Your task to perform on an android device: change text size in settings app Image 0: 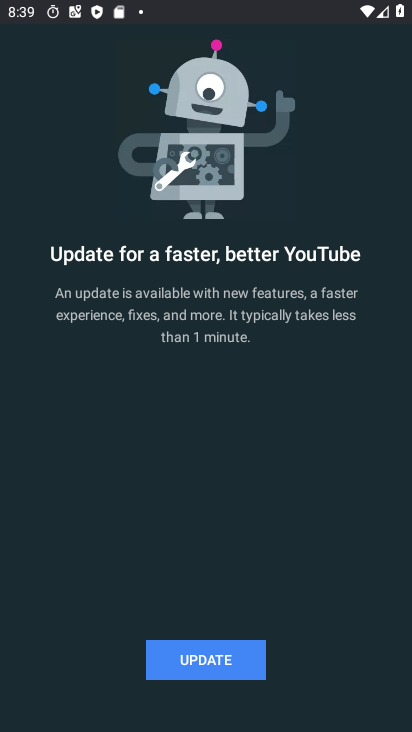
Step 0: press home button
Your task to perform on an android device: change text size in settings app Image 1: 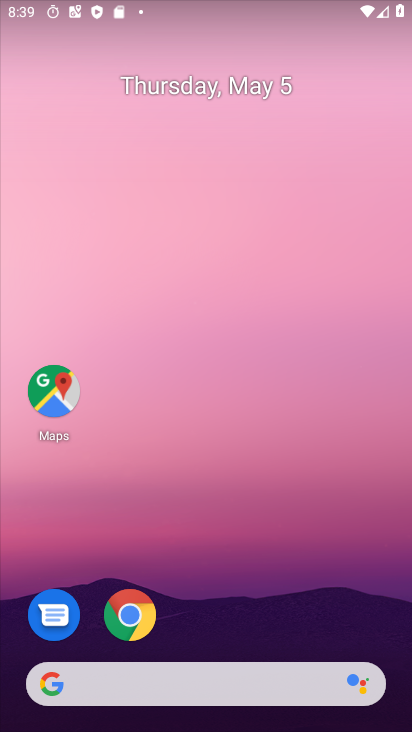
Step 1: drag from (344, 630) to (370, 0)
Your task to perform on an android device: change text size in settings app Image 2: 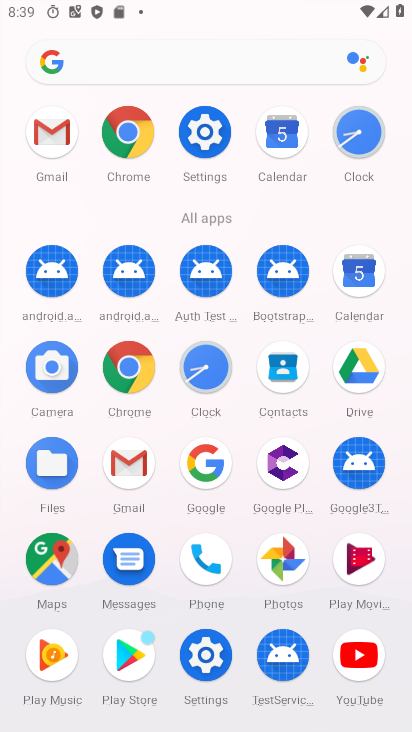
Step 2: click (223, 137)
Your task to perform on an android device: change text size in settings app Image 3: 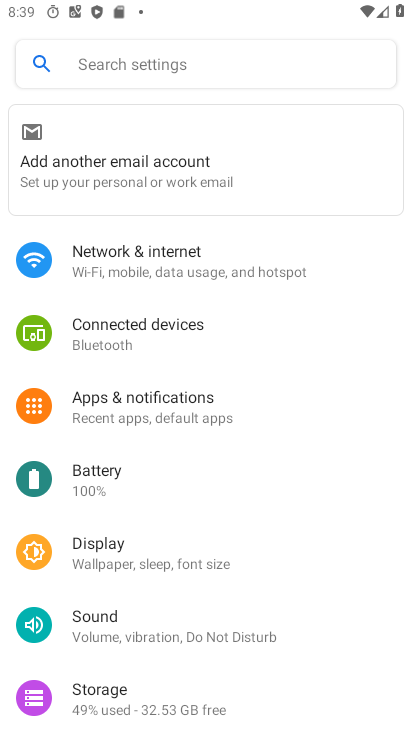
Step 3: click (136, 565)
Your task to perform on an android device: change text size in settings app Image 4: 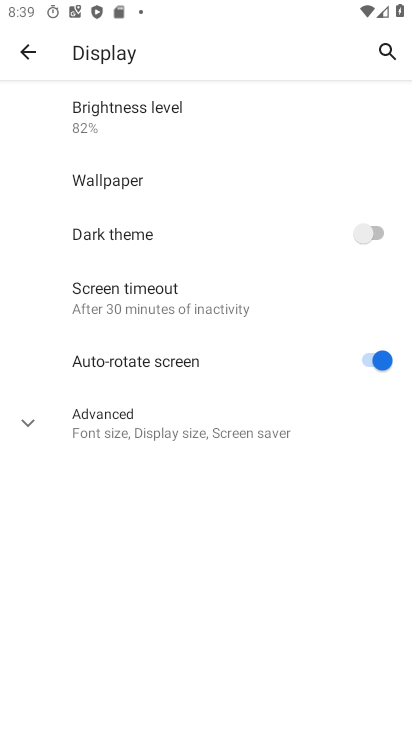
Step 4: click (145, 423)
Your task to perform on an android device: change text size in settings app Image 5: 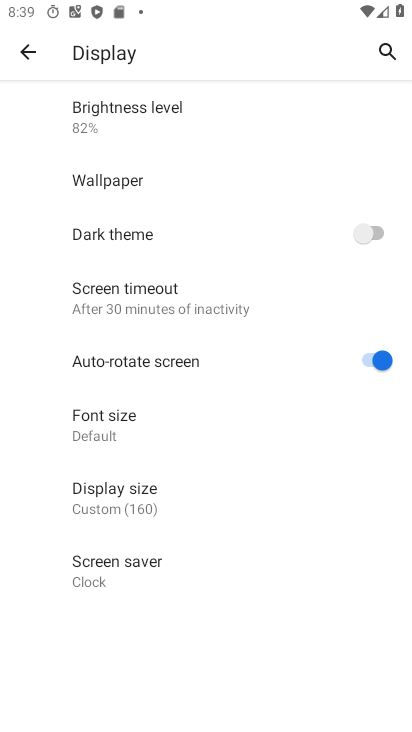
Step 5: click (108, 421)
Your task to perform on an android device: change text size in settings app Image 6: 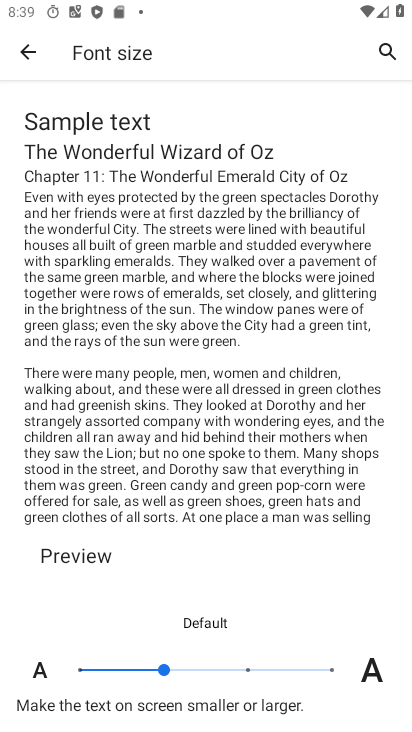
Step 6: click (242, 670)
Your task to perform on an android device: change text size in settings app Image 7: 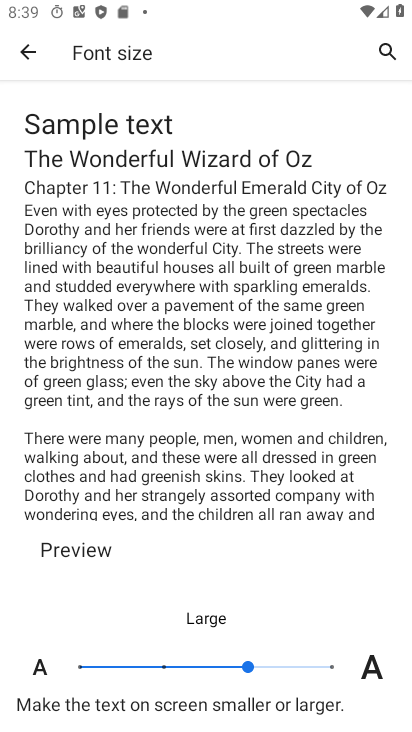
Step 7: task complete